Your task to perform on an android device: Open the phone app and click the voicemail tab. Image 0: 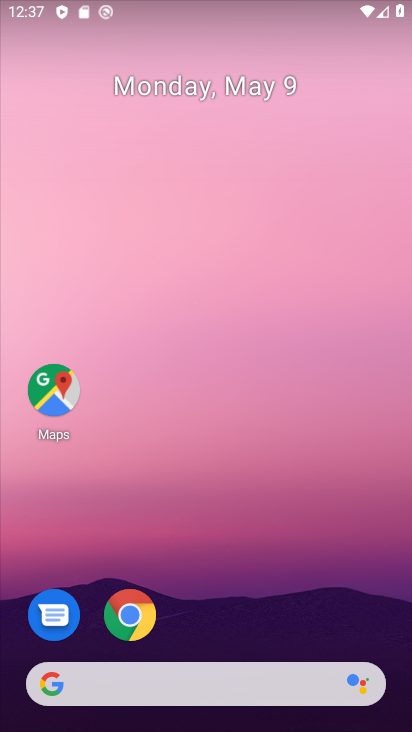
Step 0: drag from (235, 607) to (123, 114)
Your task to perform on an android device: Open the phone app and click the voicemail tab. Image 1: 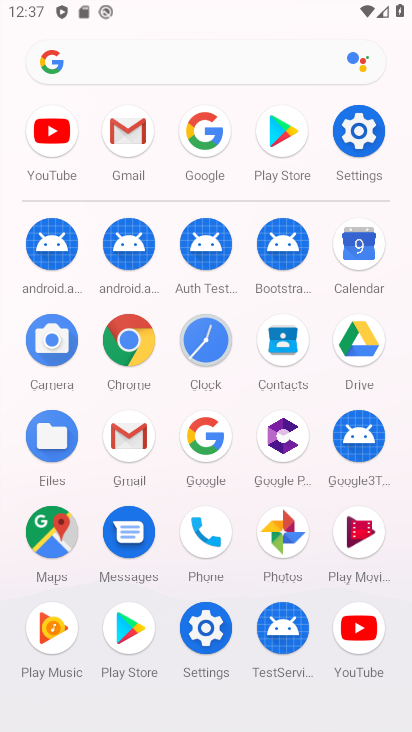
Step 1: drag from (164, 401) to (173, 261)
Your task to perform on an android device: Open the phone app and click the voicemail tab. Image 2: 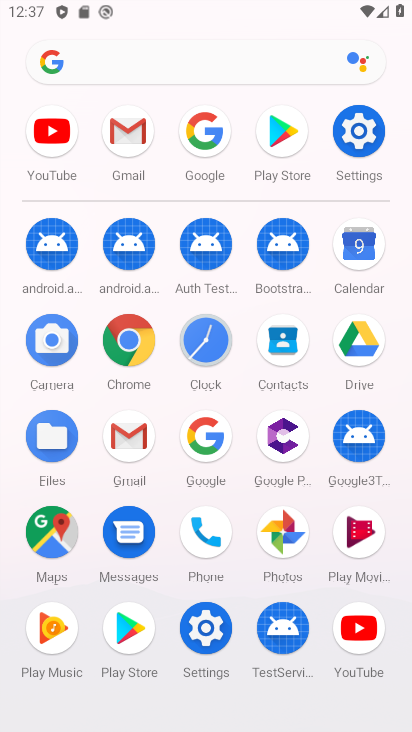
Step 2: click (205, 530)
Your task to perform on an android device: Open the phone app and click the voicemail tab. Image 3: 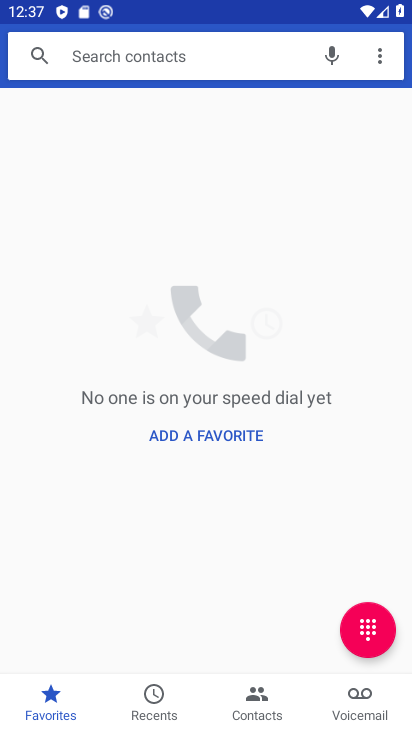
Step 3: click (362, 696)
Your task to perform on an android device: Open the phone app and click the voicemail tab. Image 4: 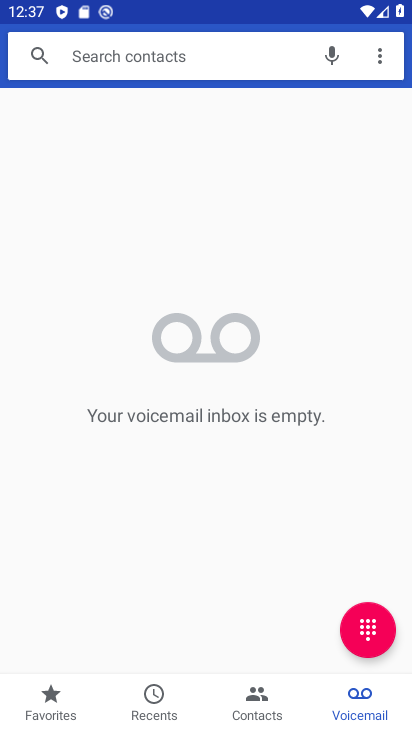
Step 4: task complete